Your task to perform on an android device: turn off data saver in the chrome app Image 0: 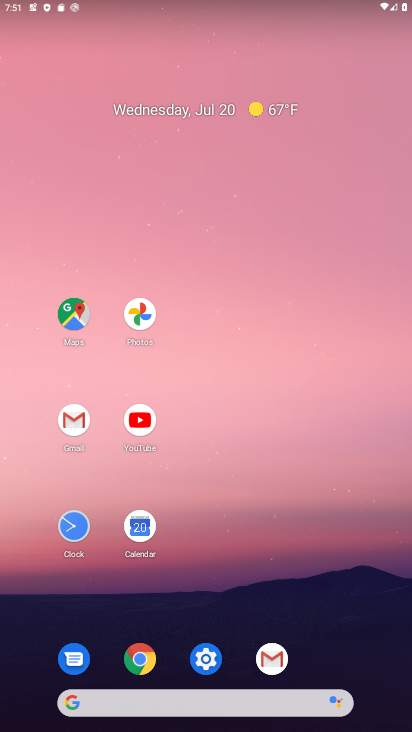
Step 0: click (143, 653)
Your task to perform on an android device: turn off data saver in the chrome app Image 1: 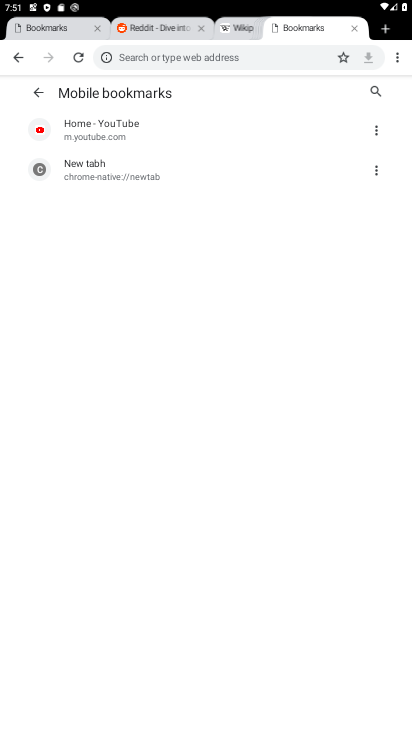
Step 1: click (400, 54)
Your task to perform on an android device: turn off data saver in the chrome app Image 2: 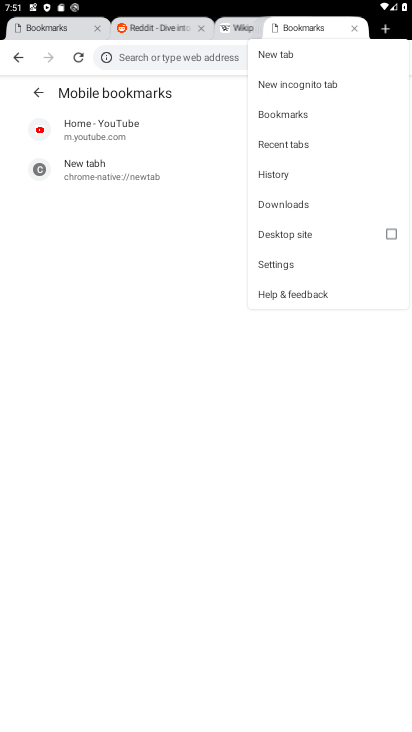
Step 2: click (285, 265)
Your task to perform on an android device: turn off data saver in the chrome app Image 3: 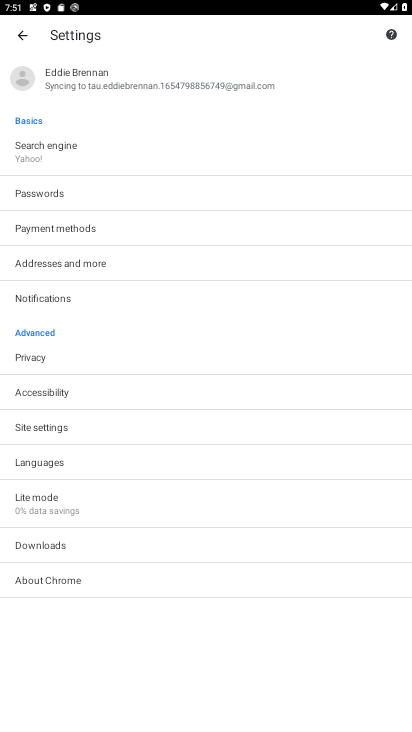
Step 3: click (44, 494)
Your task to perform on an android device: turn off data saver in the chrome app Image 4: 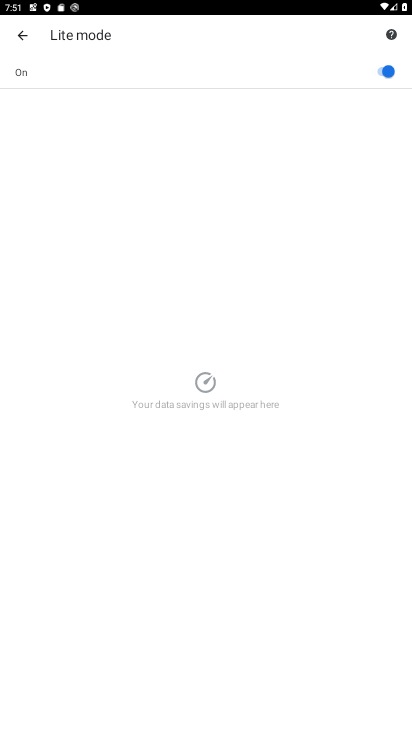
Step 4: click (390, 71)
Your task to perform on an android device: turn off data saver in the chrome app Image 5: 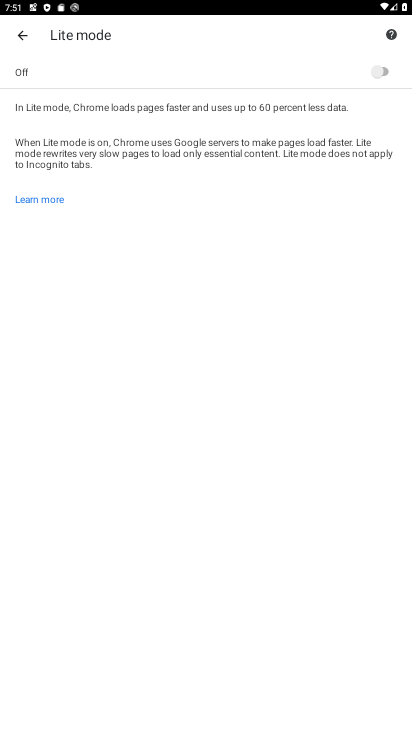
Step 5: task complete